Your task to perform on an android device: change the clock style Image 0: 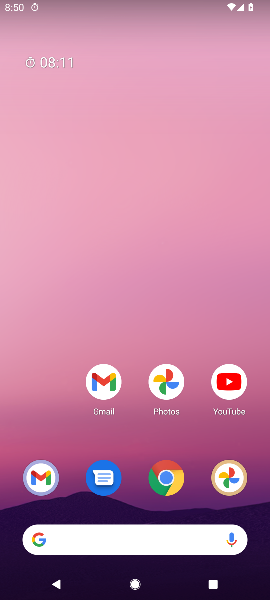
Step 0: press home button
Your task to perform on an android device: change the clock style Image 1: 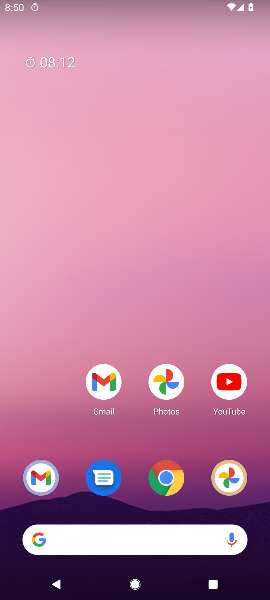
Step 1: drag from (174, 526) to (177, 13)
Your task to perform on an android device: change the clock style Image 2: 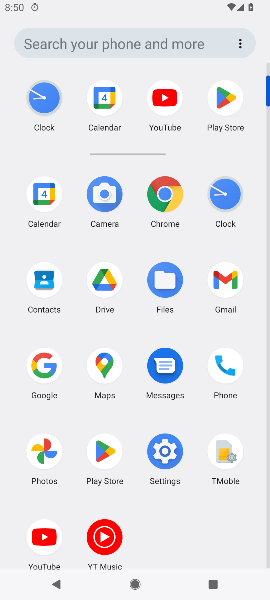
Step 2: click (235, 199)
Your task to perform on an android device: change the clock style Image 3: 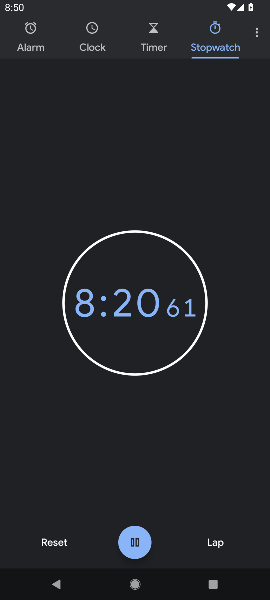
Step 3: click (254, 44)
Your task to perform on an android device: change the clock style Image 4: 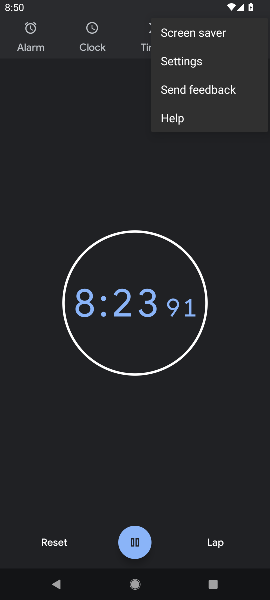
Step 4: click (169, 65)
Your task to perform on an android device: change the clock style Image 5: 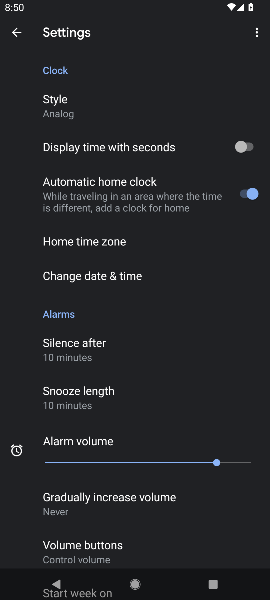
Step 5: click (53, 110)
Your task to perform on an android device: change the clock style Image 6: 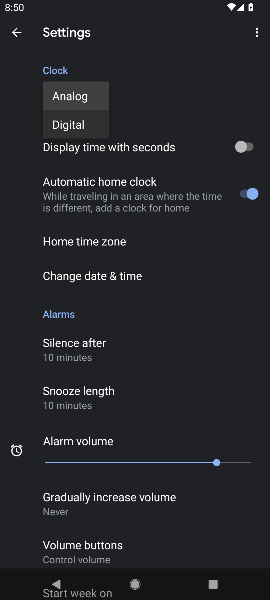
Step 6: click (79, 124)
Your task to perform on an android device: change the clock style Image 7: 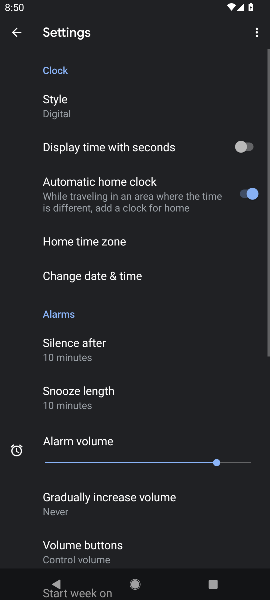
Step 7: task complete